Your task to perform on an android device: Open Amazon Image 0: 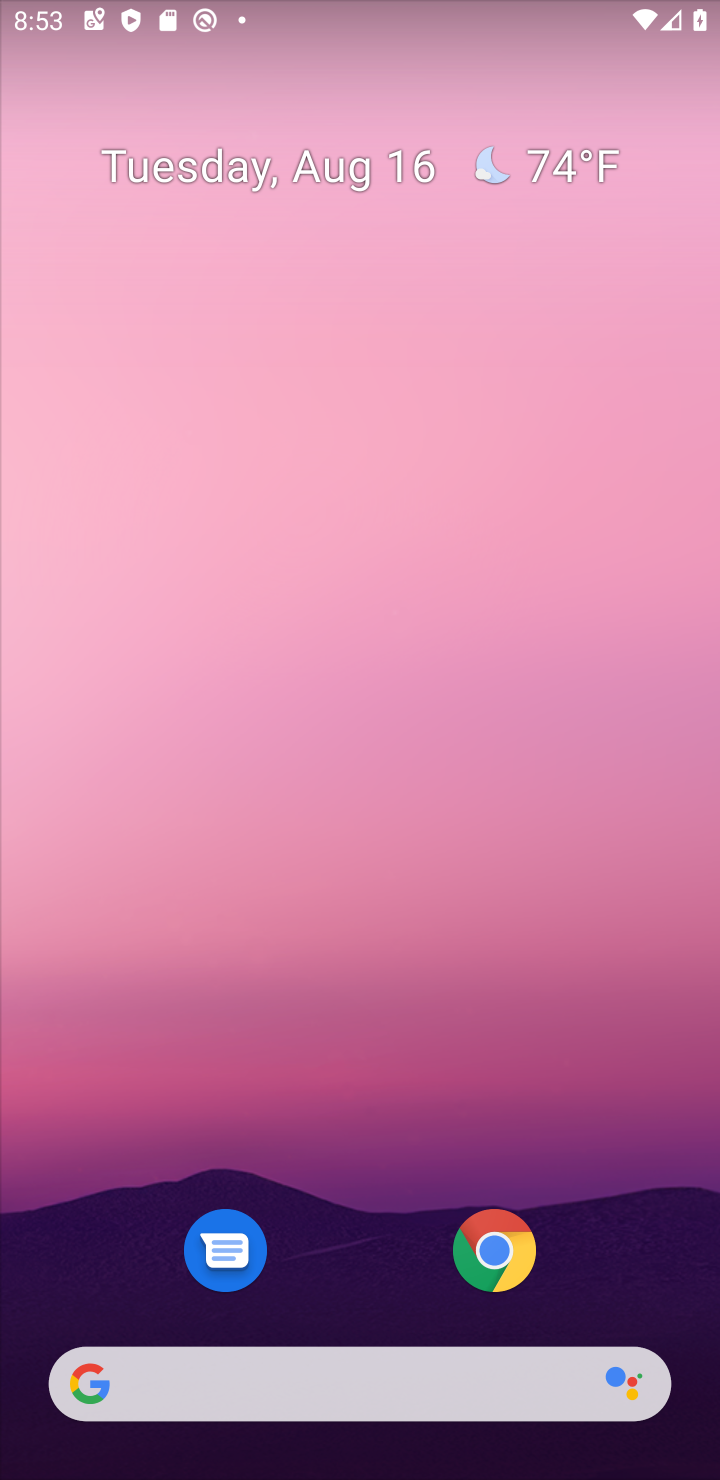
Step 0: click (509, 1248)
Your task to perform on an android device: Open Amazon Image 1: 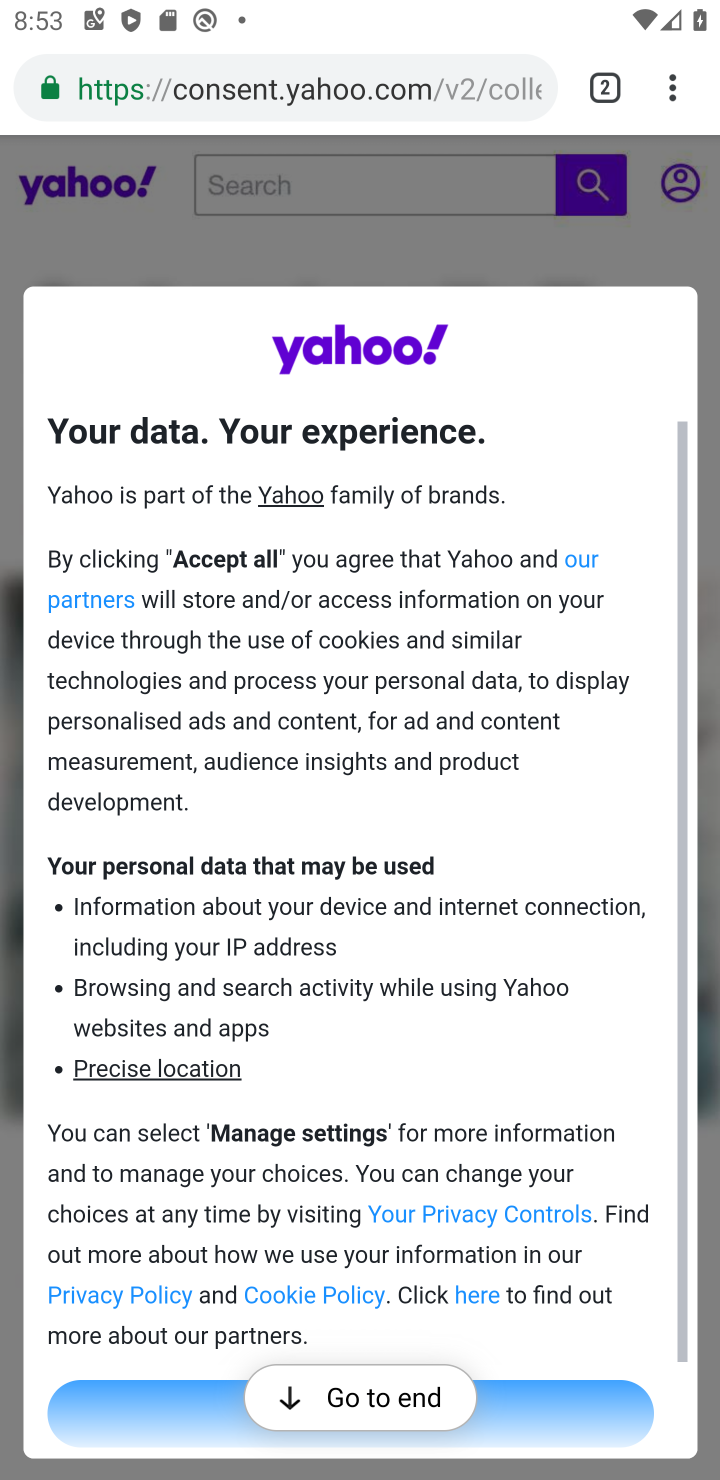
Step 1: click (620, 76)
Your task to perform on an android device: Open Amazon Image 2: 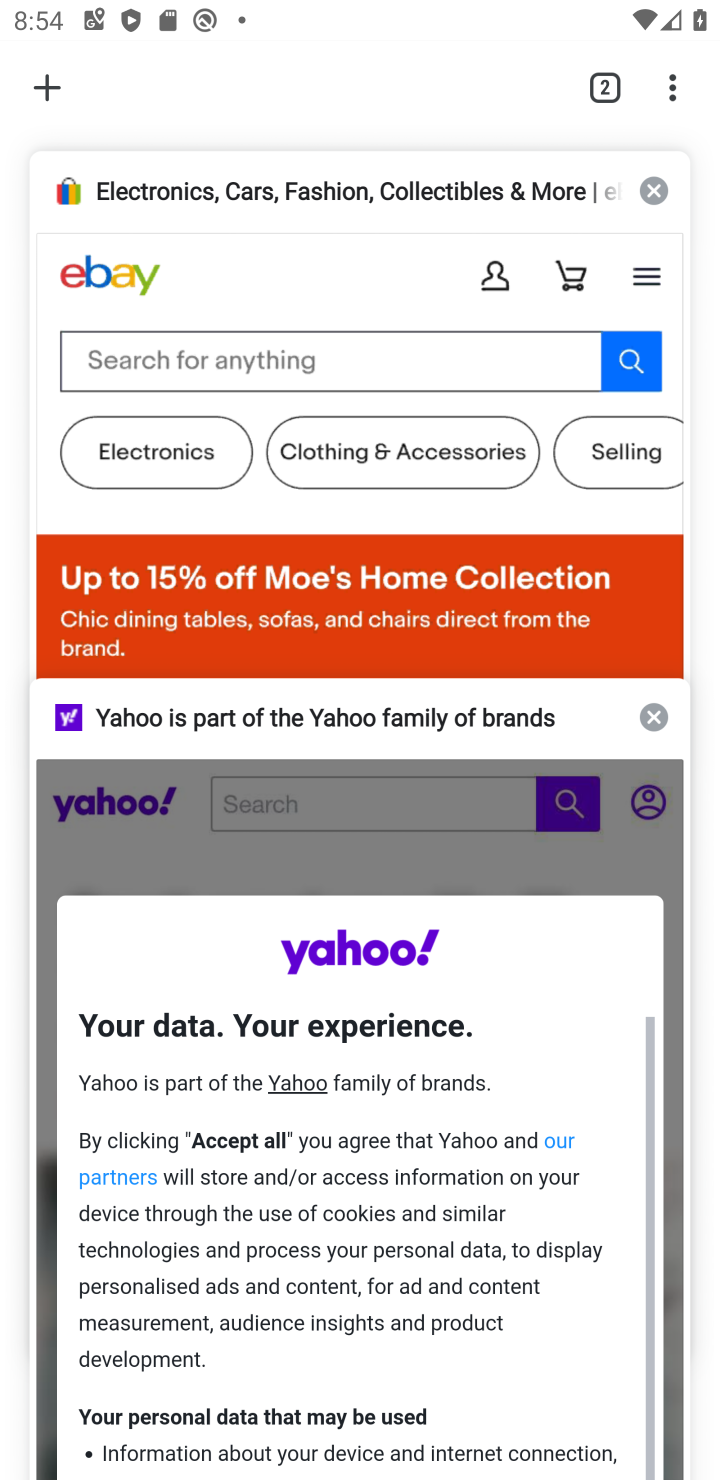
Step 2: click (47, 87)
Your task to perform on an android device: Open Amazon Image 3: 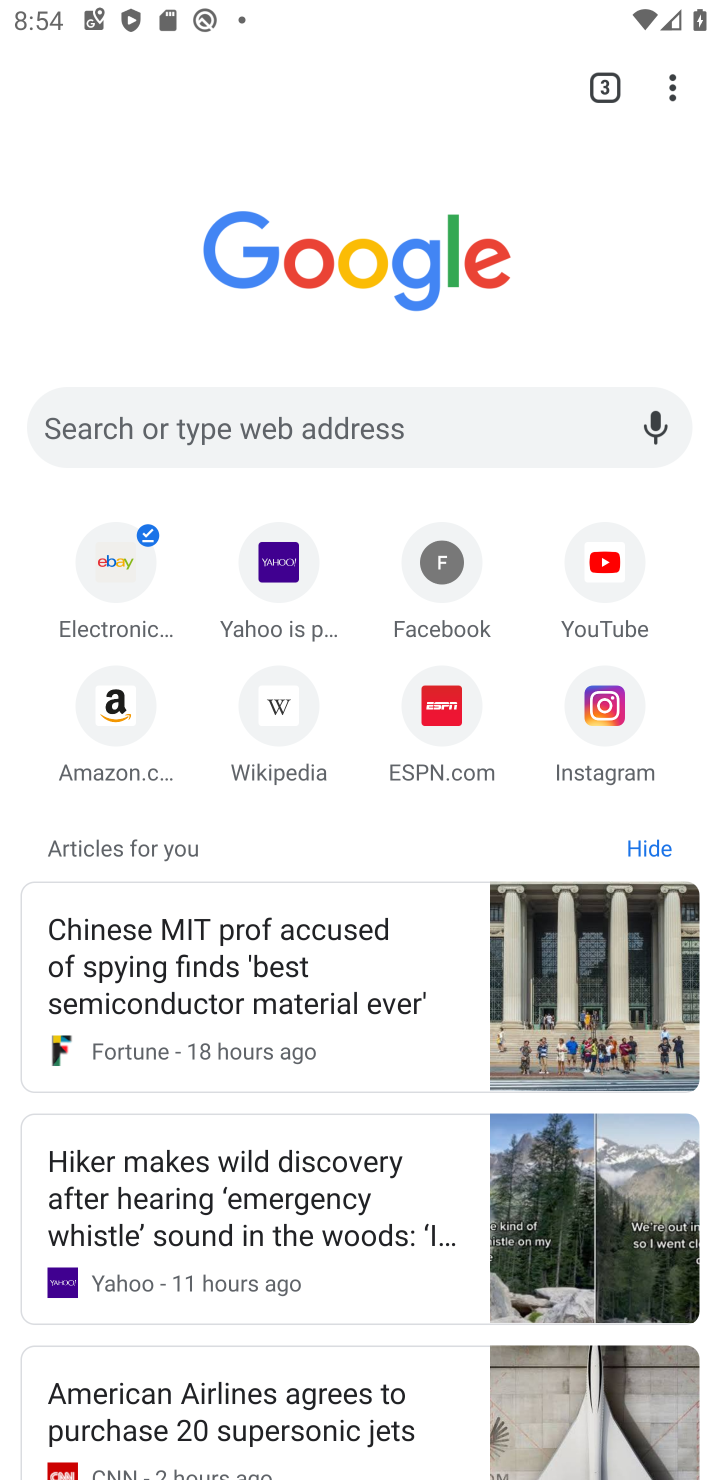
Step 3: click (132, 697)
Your task to perform on an android device: Open Amazon Image 4: 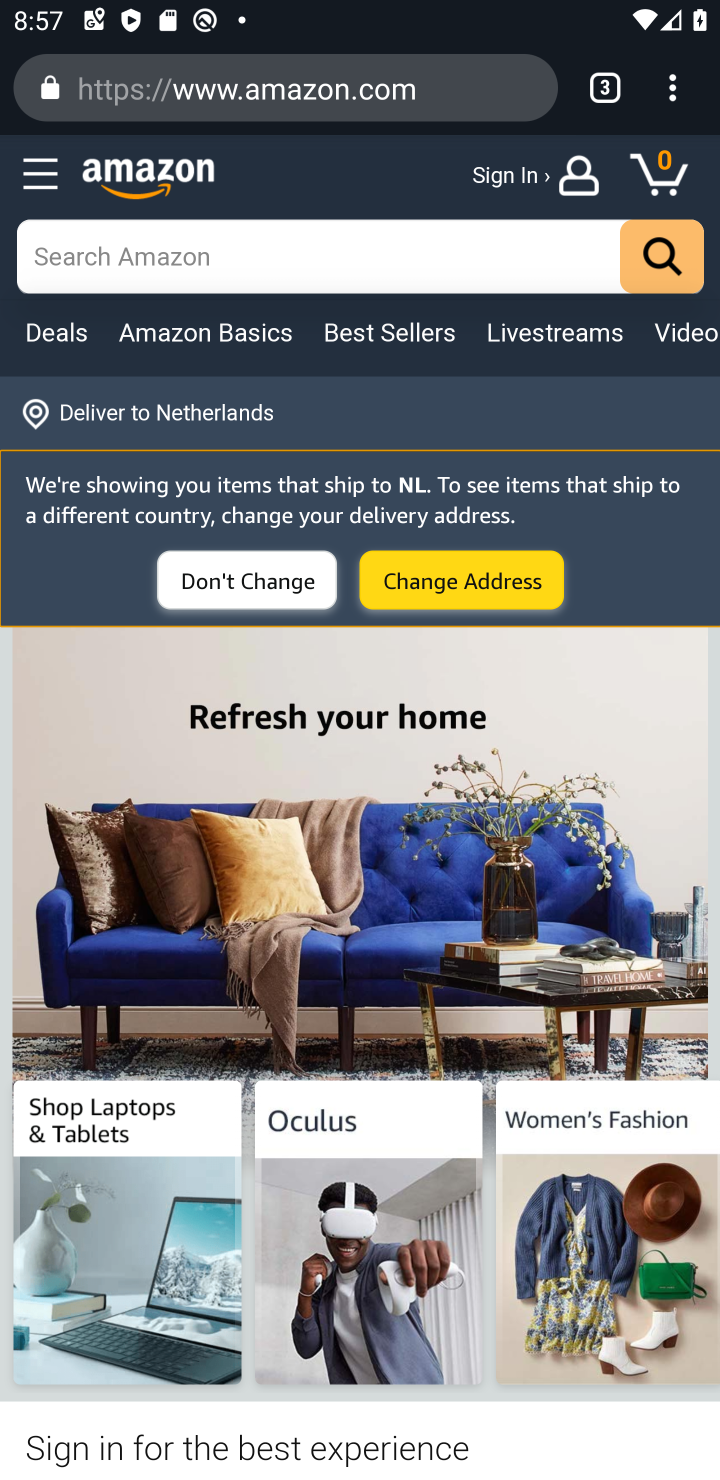
Step 4: task complete